Your task to perform on an android device: Open a new private window in the chrome app Image 0: 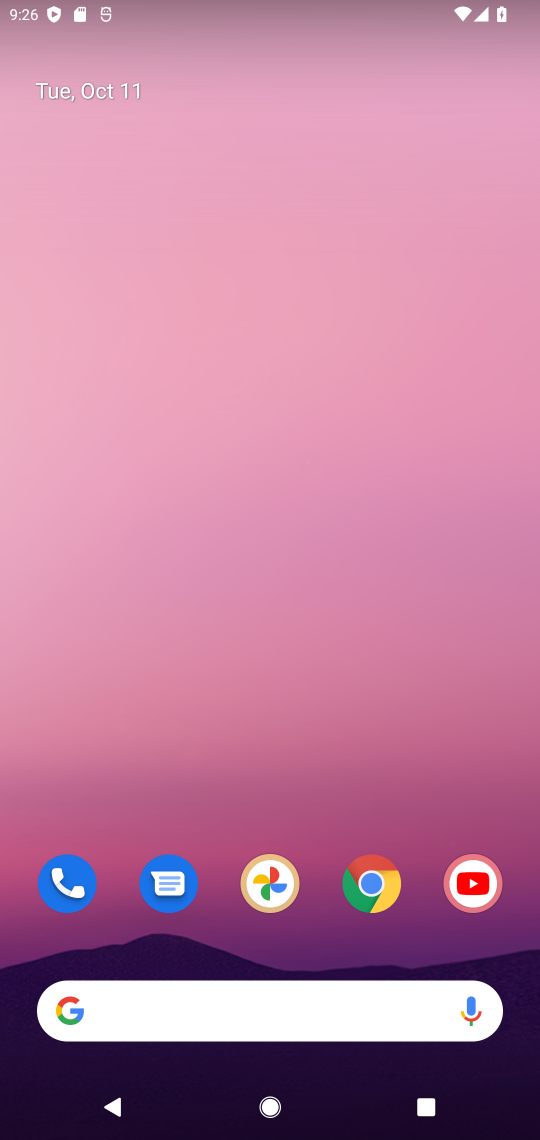
Step 0: click (359, 880)
Your task to perform on an android device: Open a new private window in the chrome app Image 1: 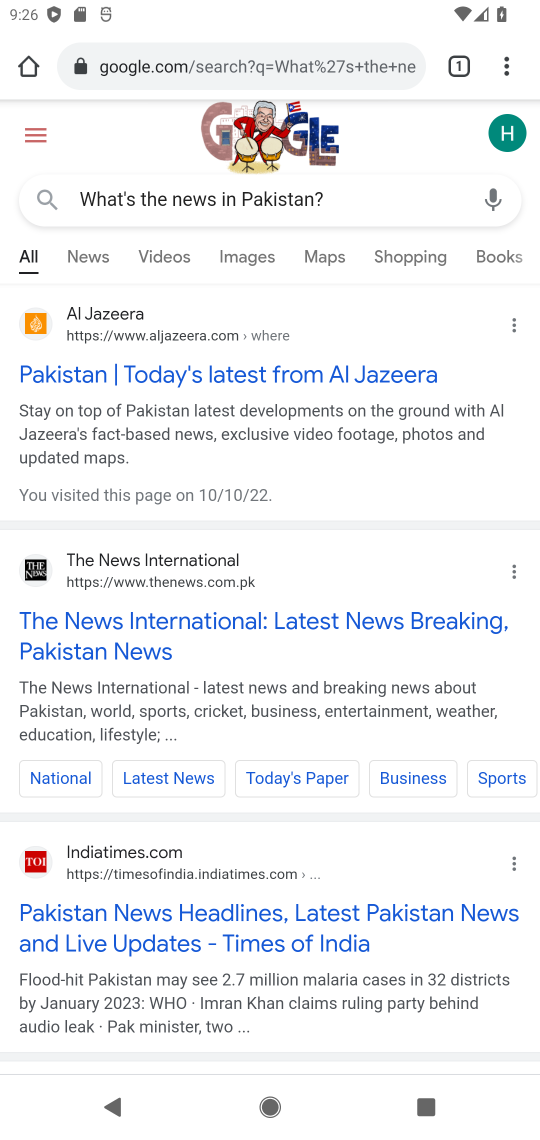
Step 1: click (503, 63)
Your task to perform on an android device: Open a new private window in the chrome app Image 2: 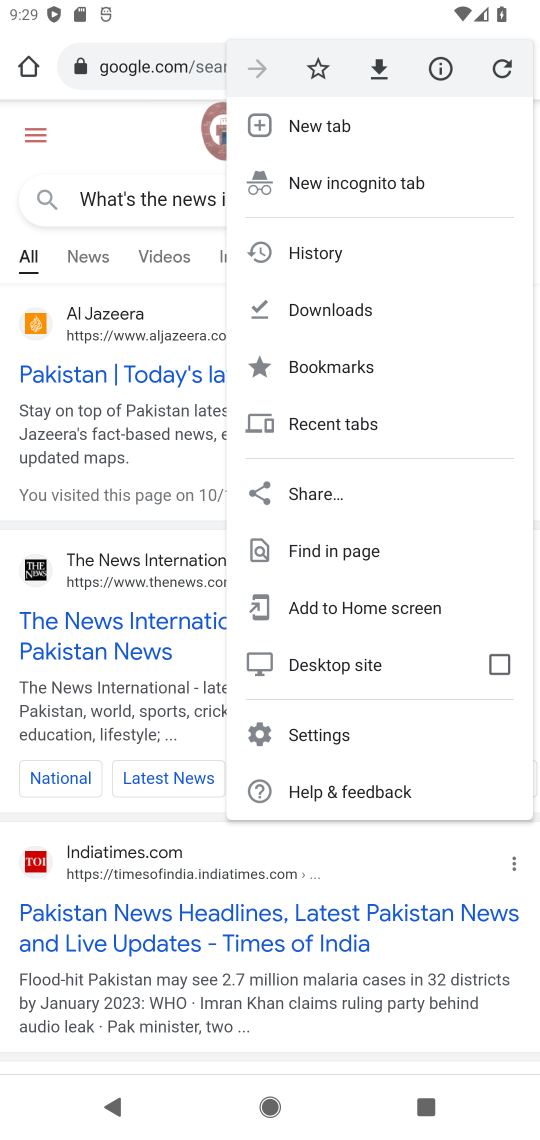
Step 2: click (329, 119)
Your task to perform on an android device: Open a new private window in the chrome app Image 3: 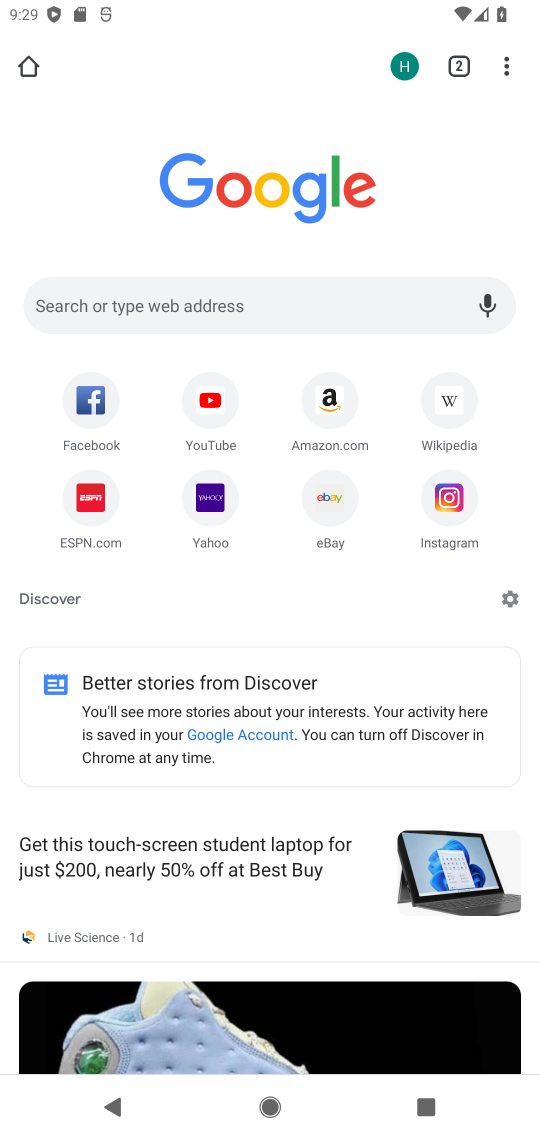
Step 3: task complete